Your task to perform on an android device: Search for Italian restaurants on Maps Image 0: 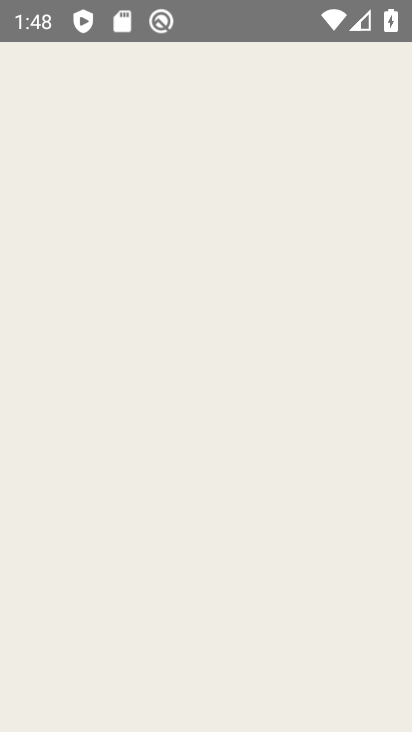
Step 0: drag from (382, 473) to (392, 91)
Your task to perform on an android device: Search for Italian restaurants on Maps Image 1: 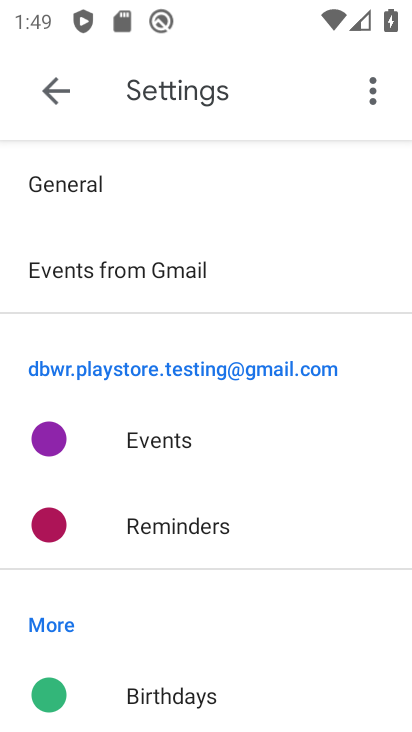
Step 1: press home button
Your task to perform on an android device: Search for Italian restaurants on Maps Image 2: 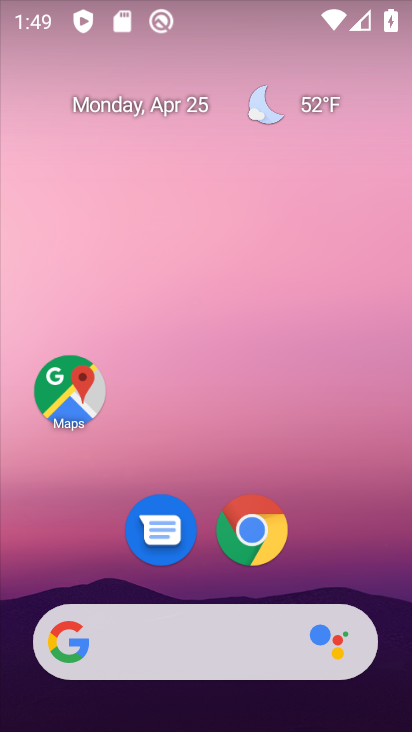
Step 2: drag from (381, 576) to (351, 131)
Your task to perform on an android device: Search for Italian restaurants on Maps Image 3: 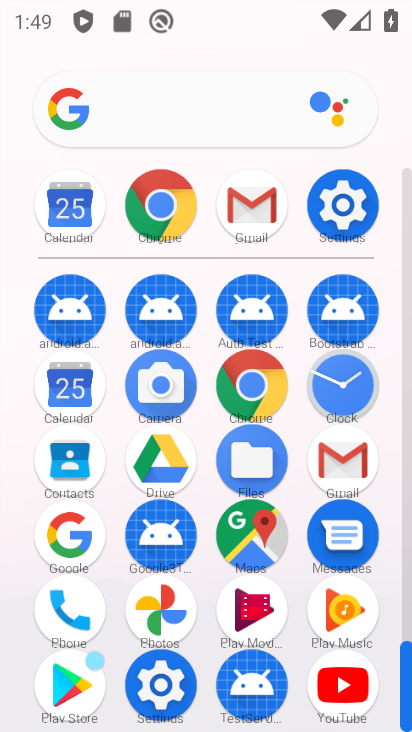
Step 3: click (265, 530)
Your task to perform on an android device: Search for Italian restaurants on Maps Image 4: 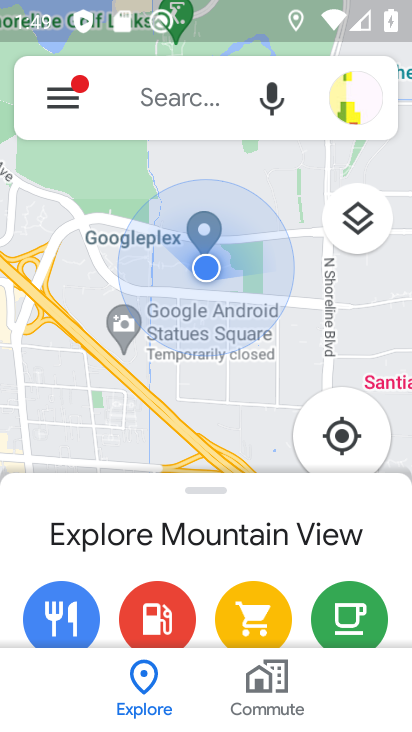
Step 4: click (162, 104)
Your task to perform on an android device: Search for Italian restaurants on Maps Image 5: 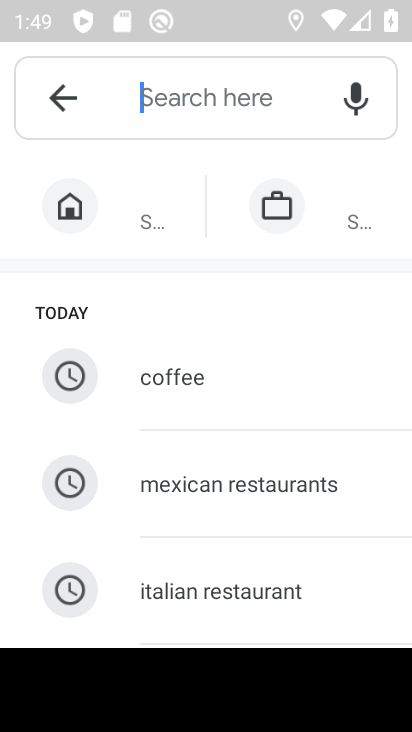
Step 5: click (187, 592)
Your task to perform on an android device: Search for Italian restaurants on Maps Image 6: 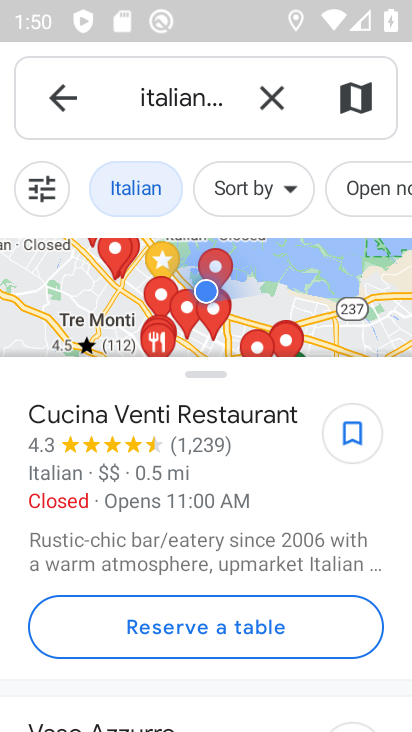
Step 6: task complete